Your task to perform on an android device: Open Google Maps Image 0: 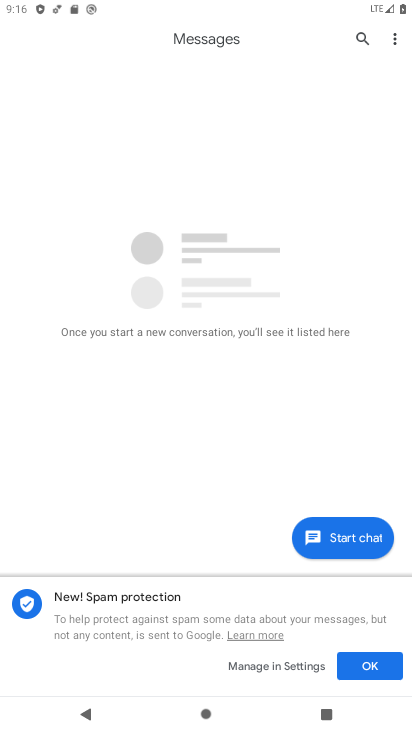
Step 0: press home button
Your task to perform on an android device: Open Google Maps Image 1: 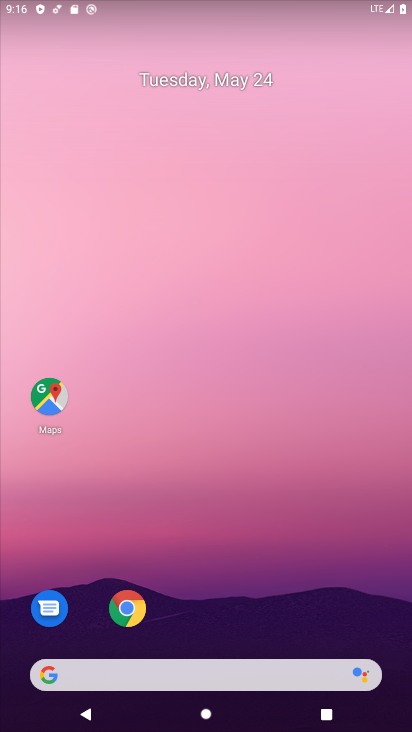
Step 1: click (64, 399)
Your task to perform on an android device: Open Google Maps Image 2: 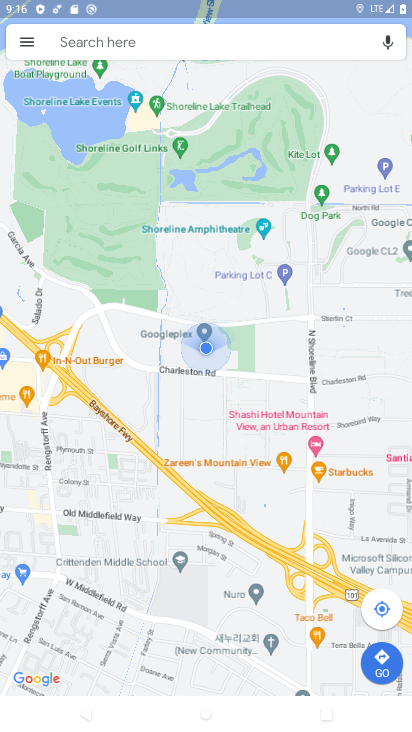
Step 2: task complete